Your task to perform on an android device: View the shopping cart on amazon. Search for razer deathadder on amazon, select the first entry, and add it to the cart. Image 0: 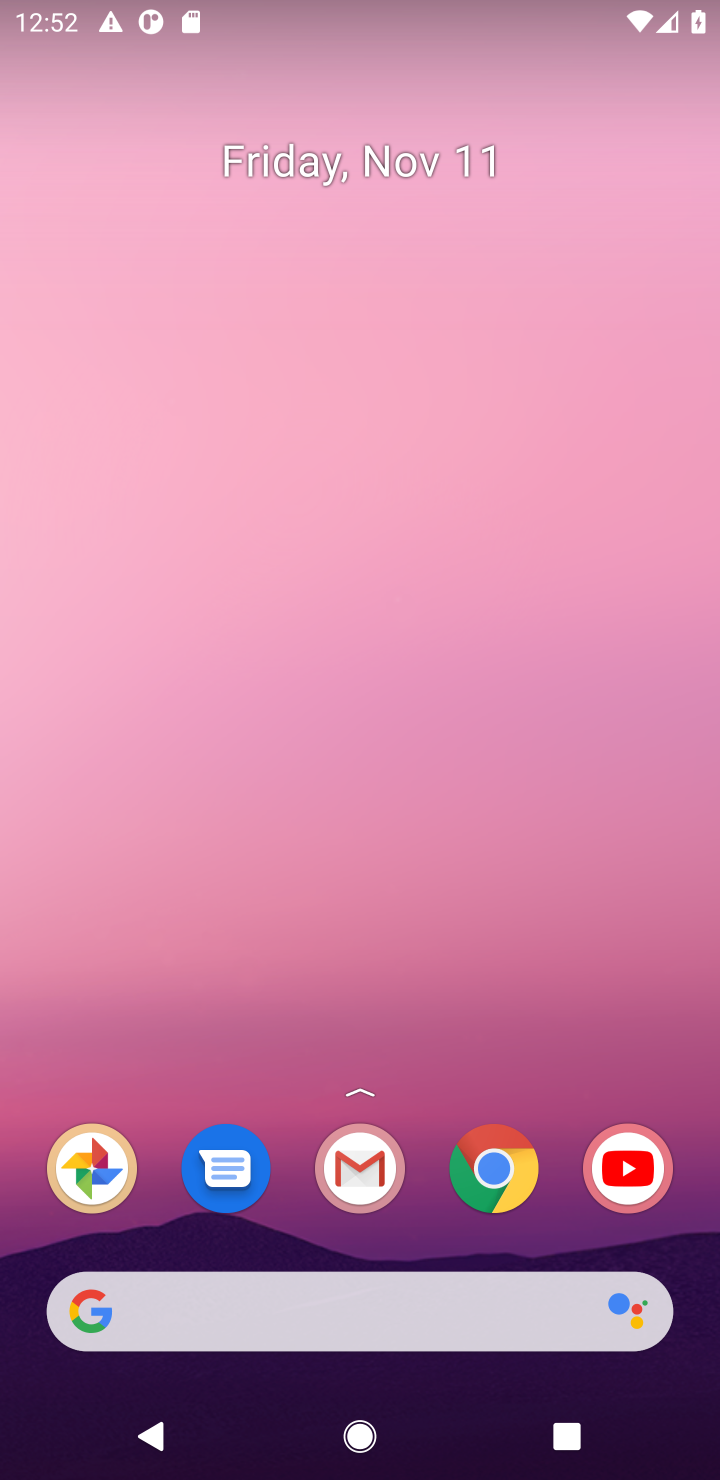
Step 0: click (494, 1179)
Your task to perform on an android device: View the shopping cart on amazon. Search for razer deathadder on amazon, select the first entry, and add it to the cart. Image 1: 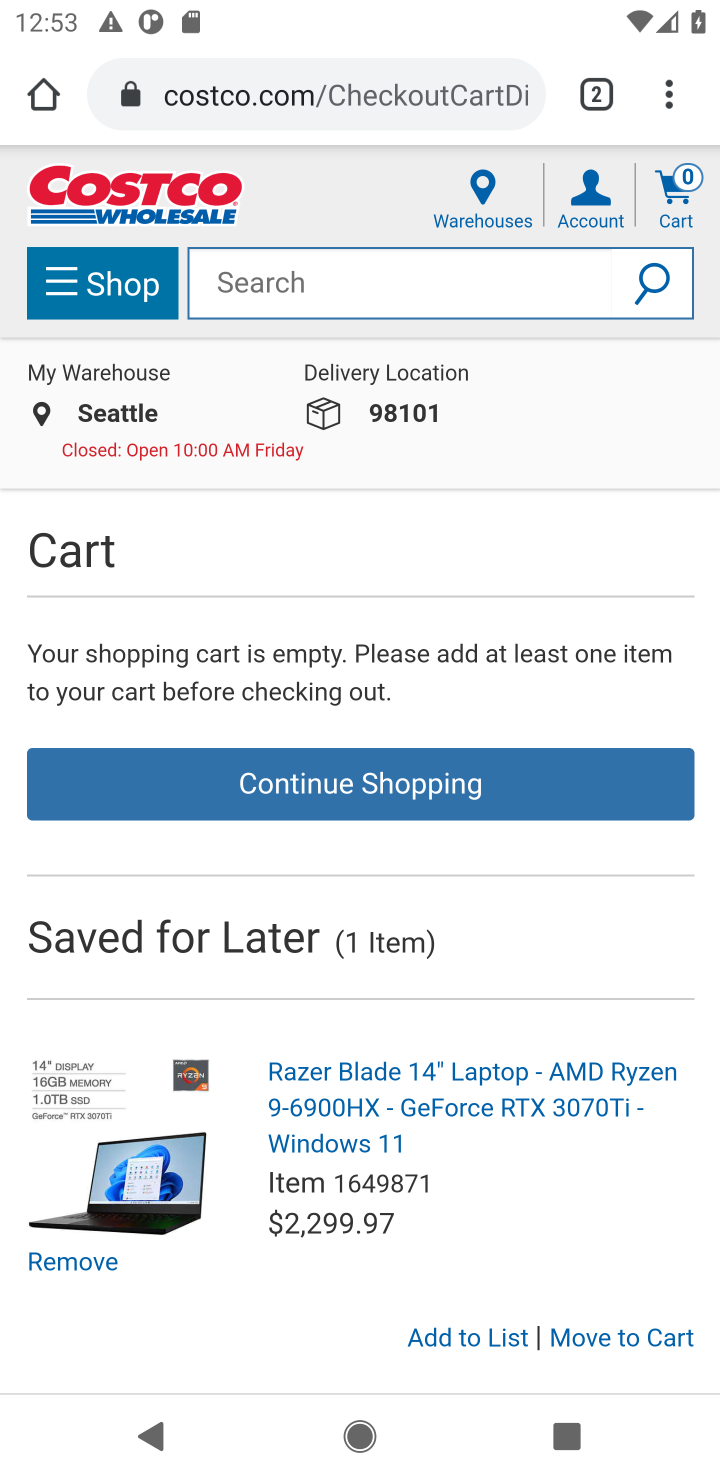
Step 1: click (307, 81)
Your task to perform on an android device: View the shopping cart on amazon. Search for razer deathadder on amazon, select the first entry, and add it to the cart. Image 2: 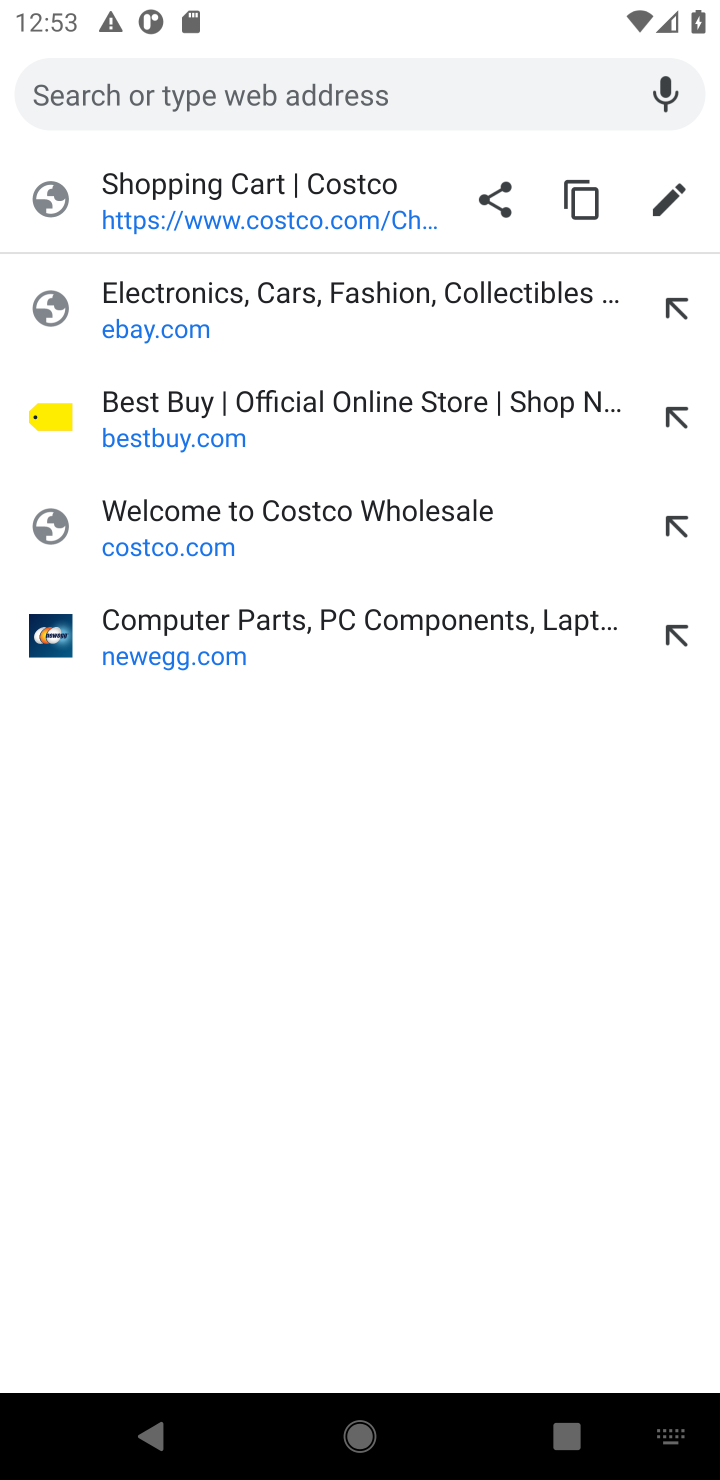
Step 2: type "amazon.com"
Your task to perform on an android device: View the shopping cart on amazon. Search for razer deathadder on amazon, select the first entry, and add it to the cart. Image 3: 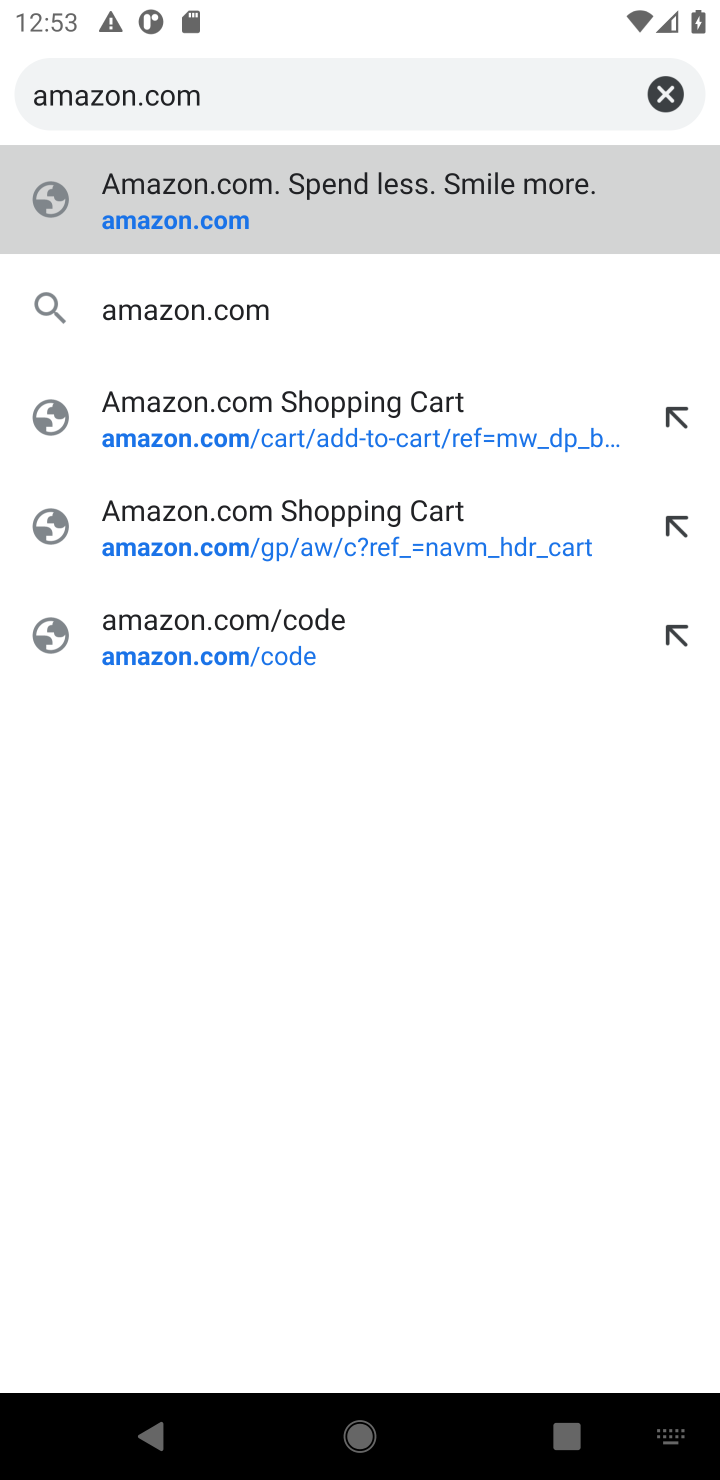
Step 3: click (174, 235)
Your task to perform on an android device: View the shopping cart on amazon. Search for razer deathadder on amazon, select the first entry, and add it to the cart. Image 4: 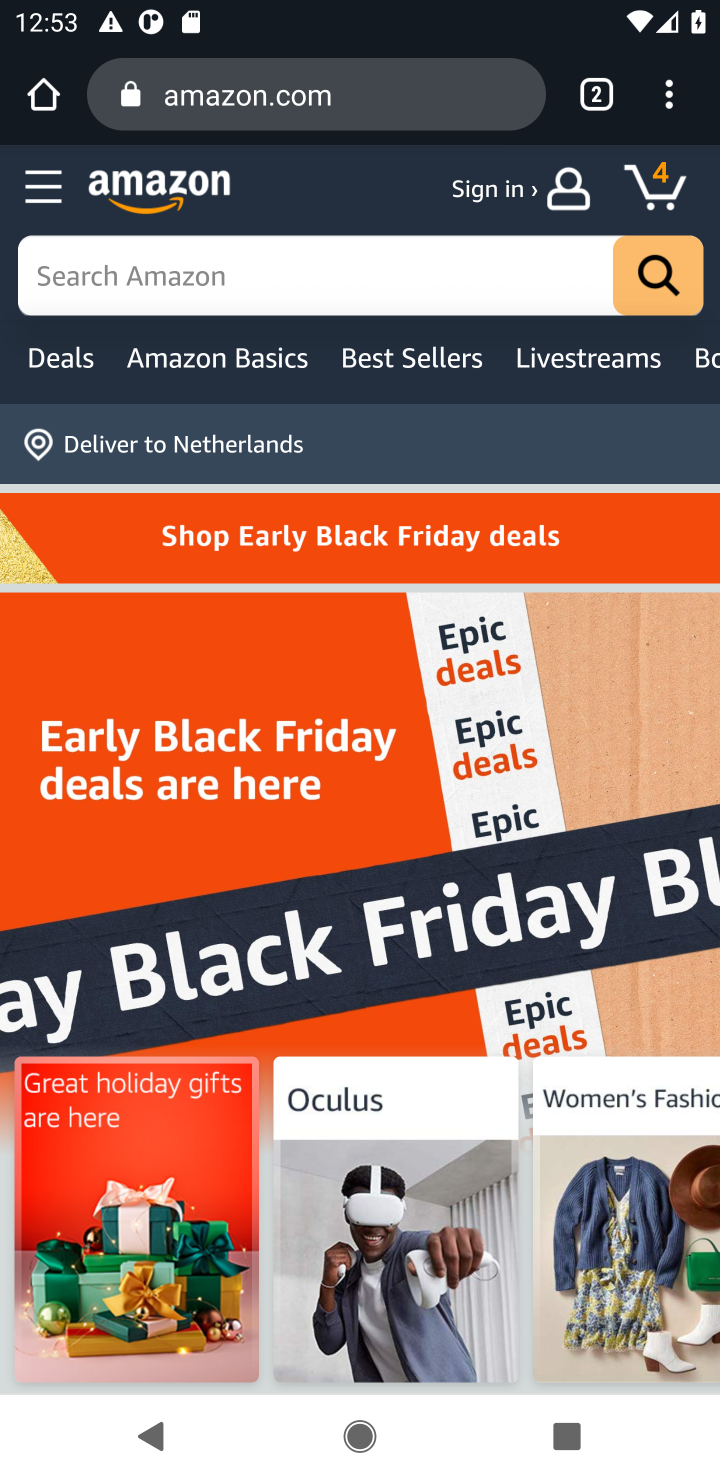
Step 4: click (663, 184)
Your task to perform on an android device: View the shopping cart on amazon. Search for razer deathadder on amazon, select the first entry, and add it to the cart. Image 5: 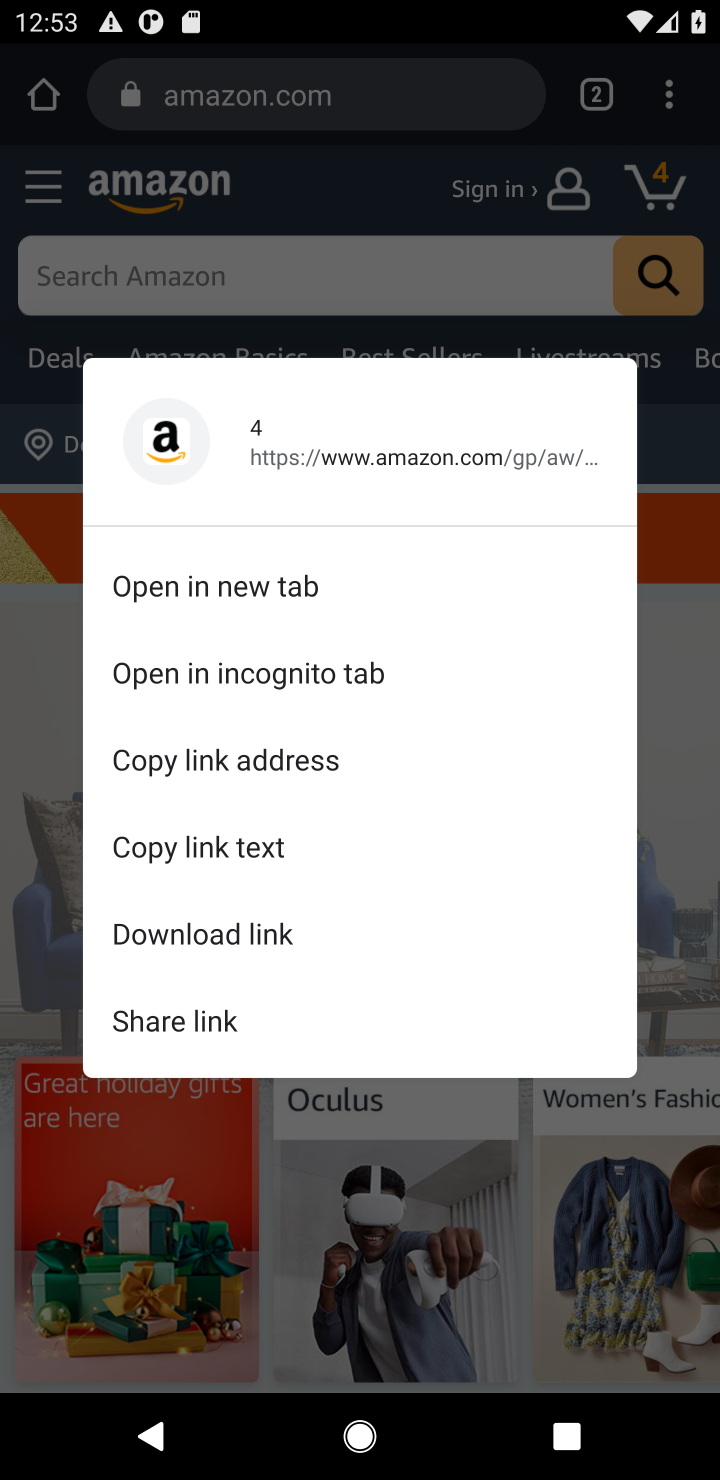
Step 5: click (663, 191)
Your task to perform on an android device: View the shopping cart on amazon. Search for razer deathadder on amazon, select the first entry, and add it to the cart. Image 6: 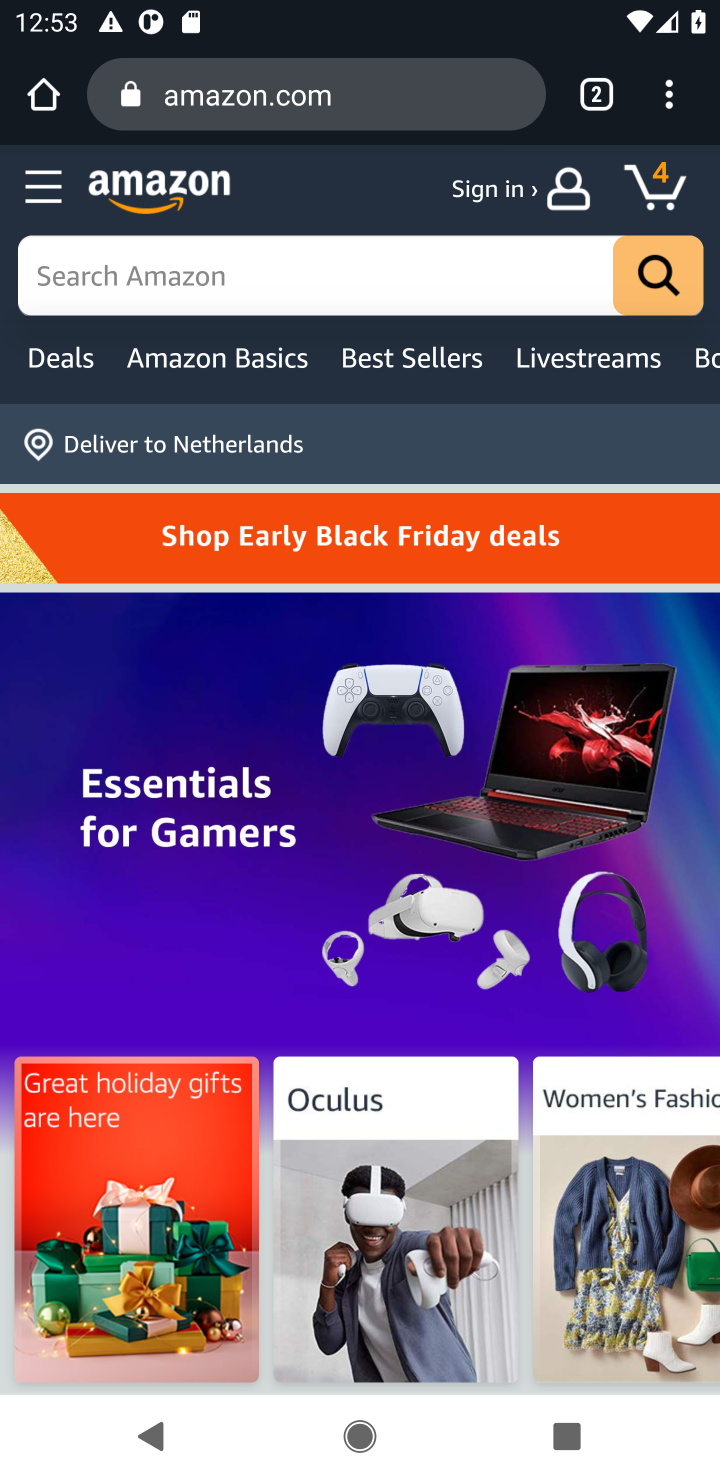
Step 6: click (663, 193)
Your task to perform on an android device: View the shopping cart on amazon. Search for razer deathadder on amazon, select the first entry, and add it to the cart. Image 7: 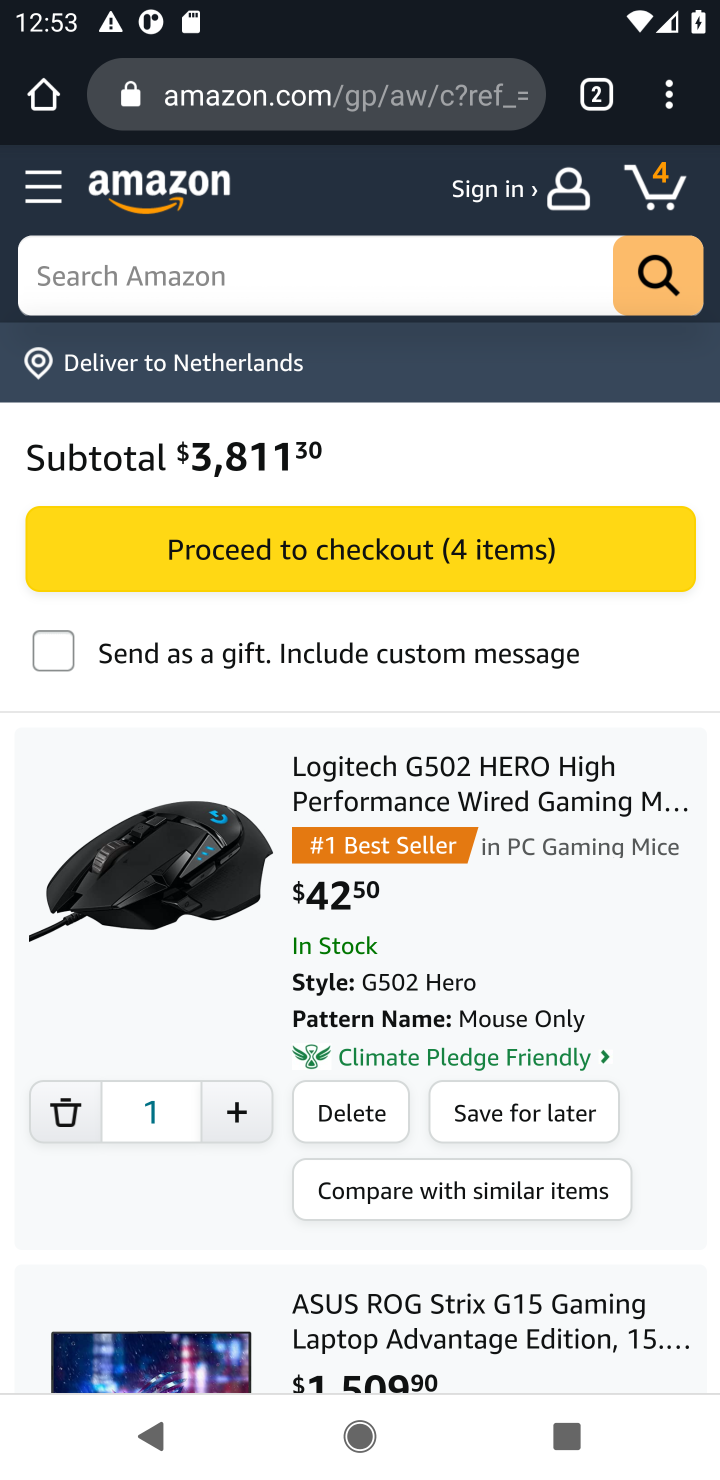
Step 7: drag from (662, 959) to (666, 829)
Your task to perform on an android device: View the shopping cart on amazon. Search for razer deathadder on amazon, select the first entry, and add it to the cart. Image 8: 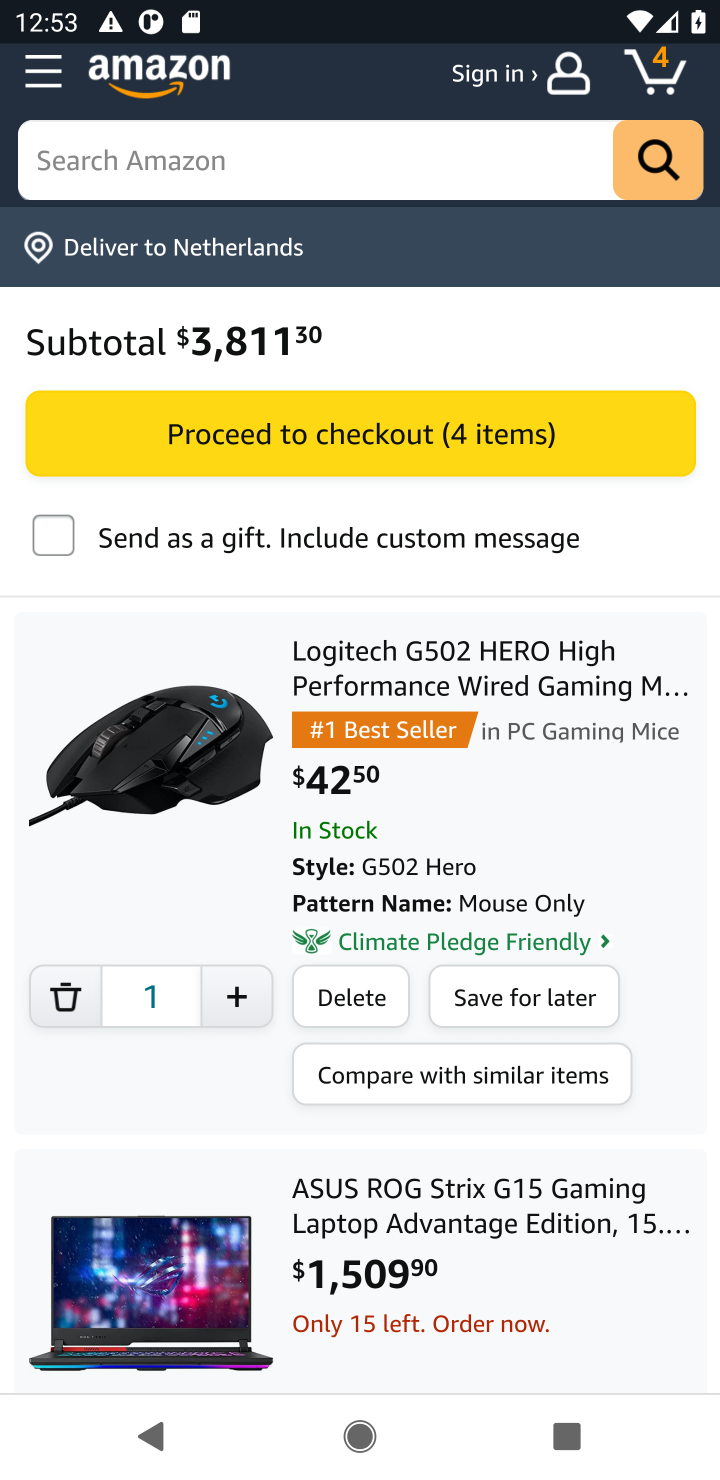
Step 8: click (189, 168)
Your task to perform on an android device: View the shopping cart on amazon. Search for razer deathadder on amazon, select the first entry, and add it to the cart. Image 9: 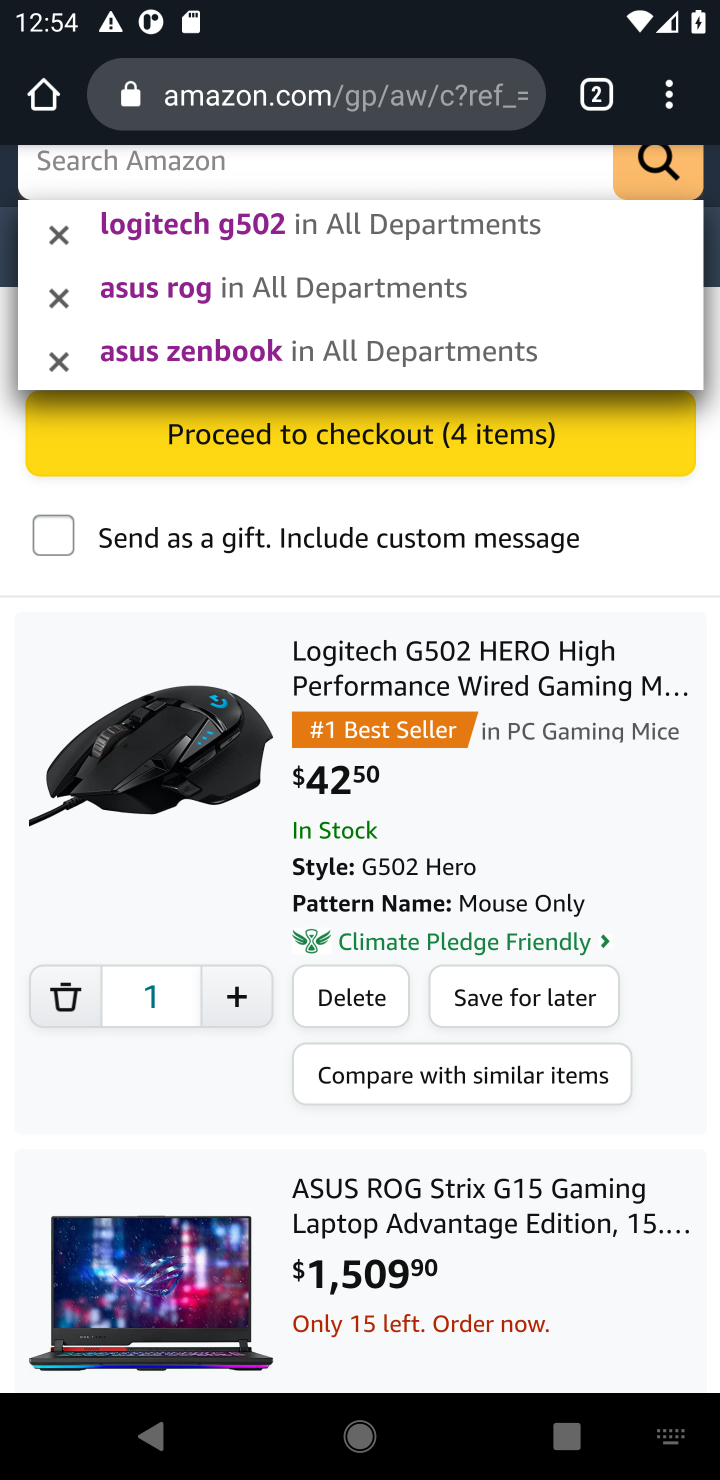
Step 9: type "razer deathadder"
Your task to perform on an android device: View the shopping cart on amazon. Search for razer deathadder on amazon, select the first entry, and add it to the cart. Image 10: 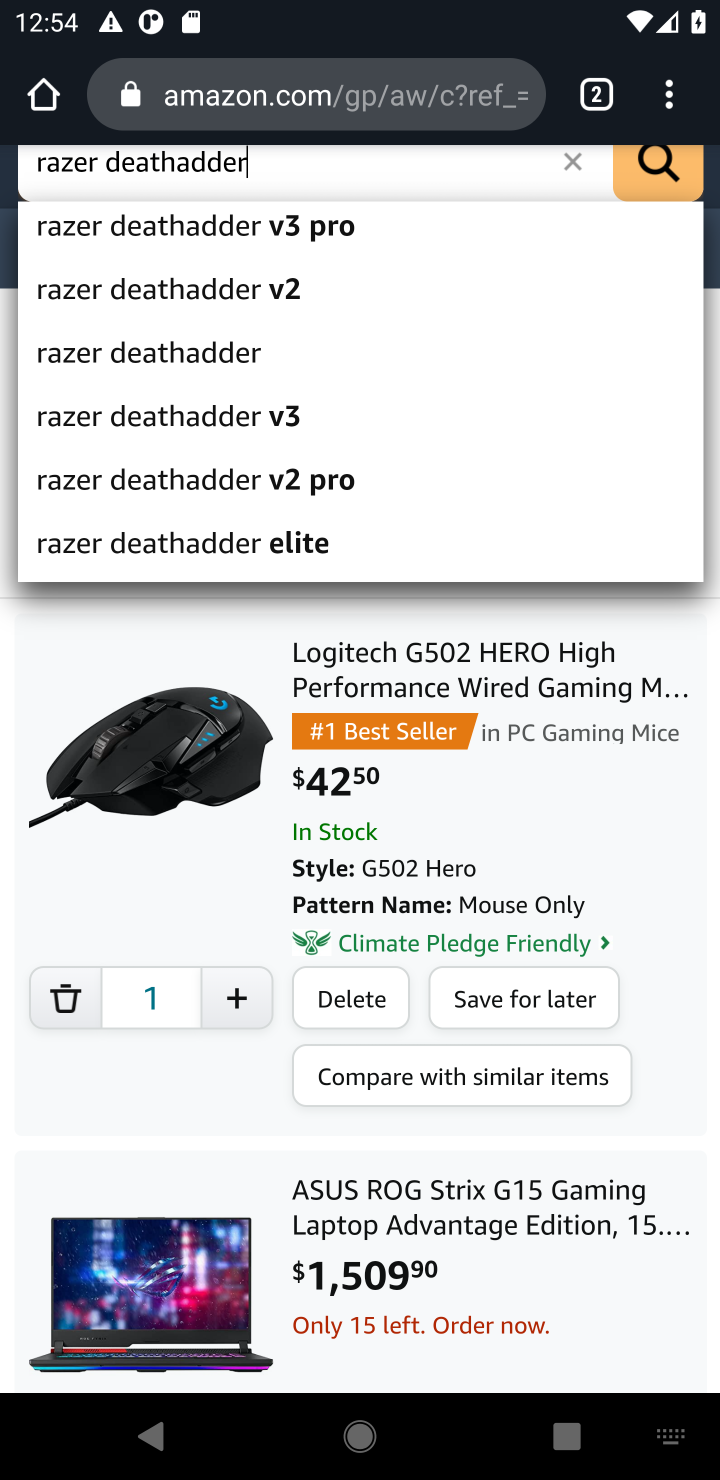
Step 10: click (203, 364)
Your task to perform on an android device: View the shopping cart on amazon. Search for razer deathadder on amazon, select the first entry, and add it to the cart. Image 11: 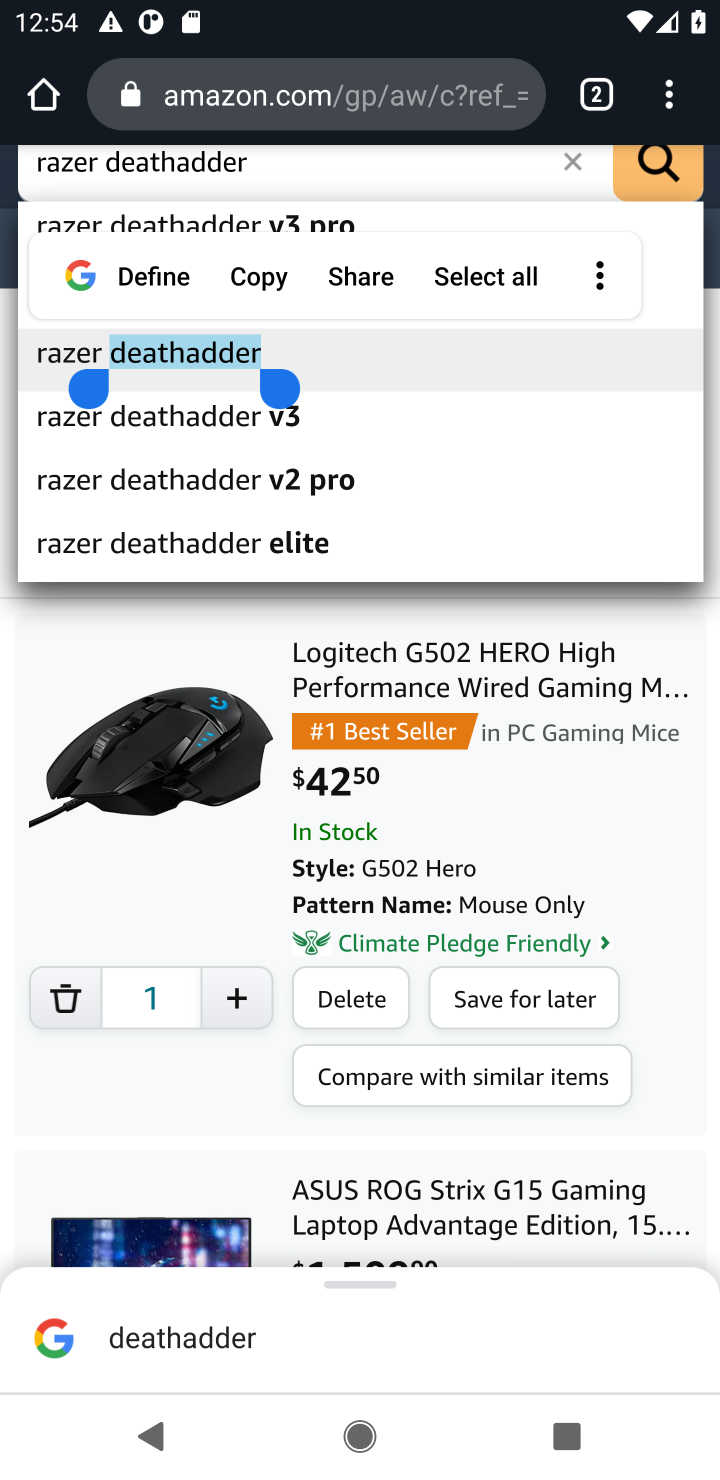
Step 11: click (77, 363)
Your task to perform on an android device: View the shopping cart on amazon. Search for razer deathadder on amazon, select the first entry, and add it to the cart. Image 12: 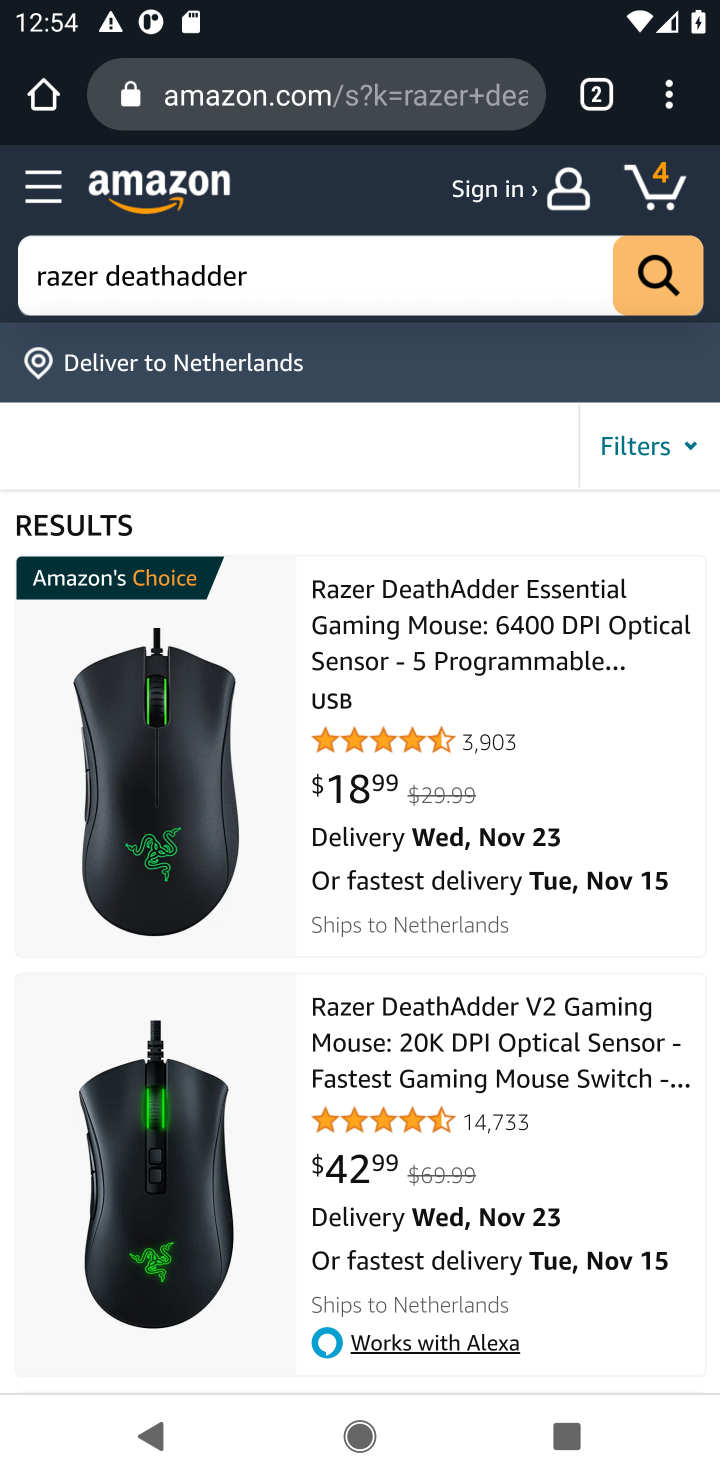
Step 12: click (204, 774)
Your task to perform on an android device: View the shopping cart on amazon. Search for razer deathadder on amazon, select the first entry, and add it to the cart. Image 13: 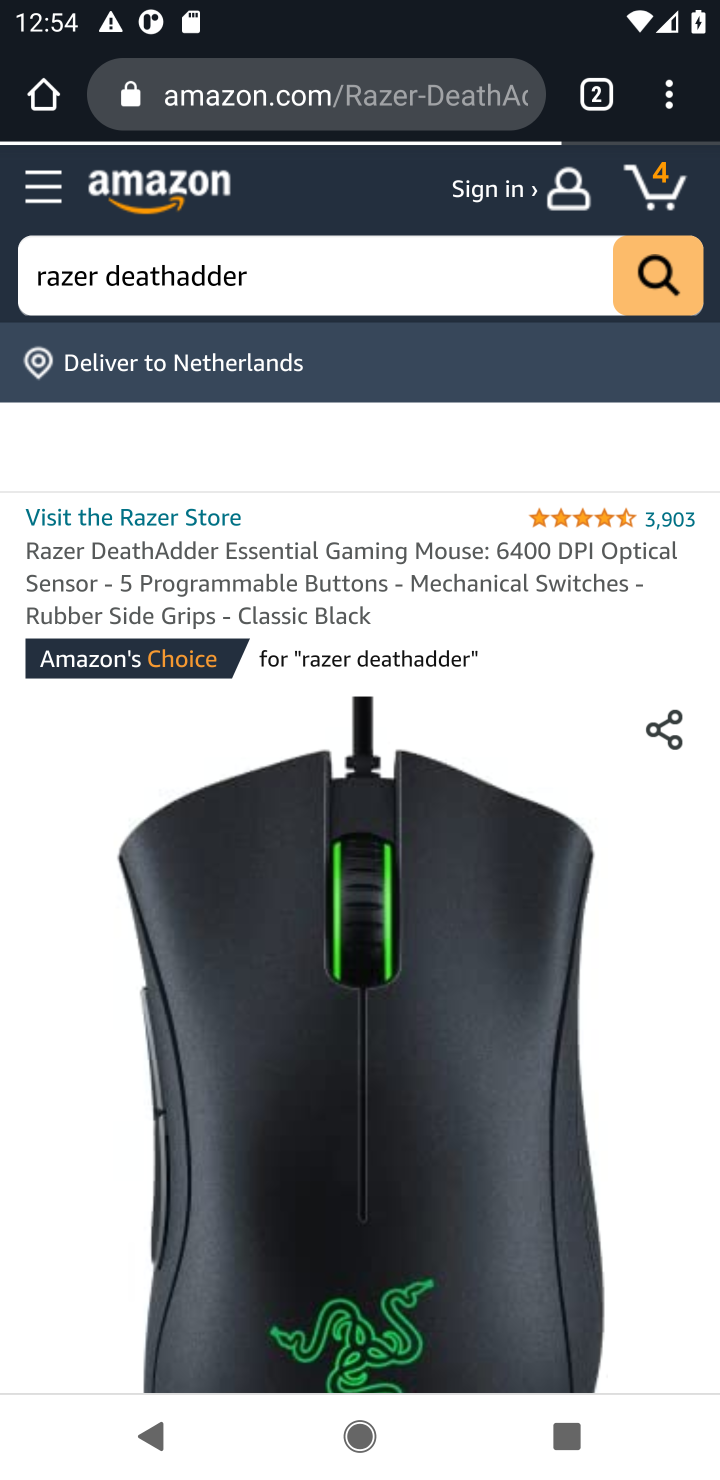
Step 13: drag from (447, 1069) to (419, 596)
Your task to perform on an android device: View the shopping cart on amazon. Search for razer deathadder on amazon, select the first entry, and add it to the cart. Image 14: 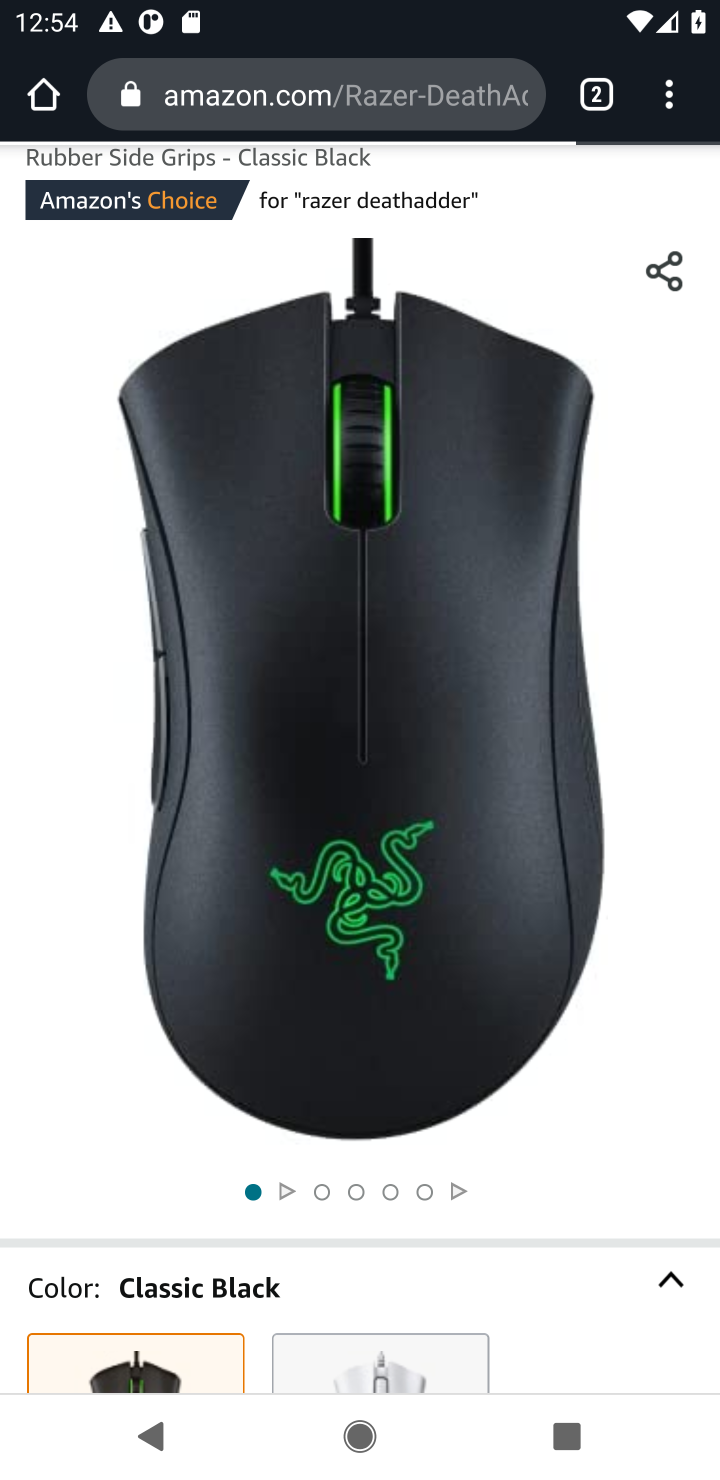
Step 14: drag from (587, 1073) to (524, 420)
Your task to perform on an android device: View the shopping cart on amazon. Search for razer deathadder on amazon, select the first entry, and add it to the cart. Image 15: 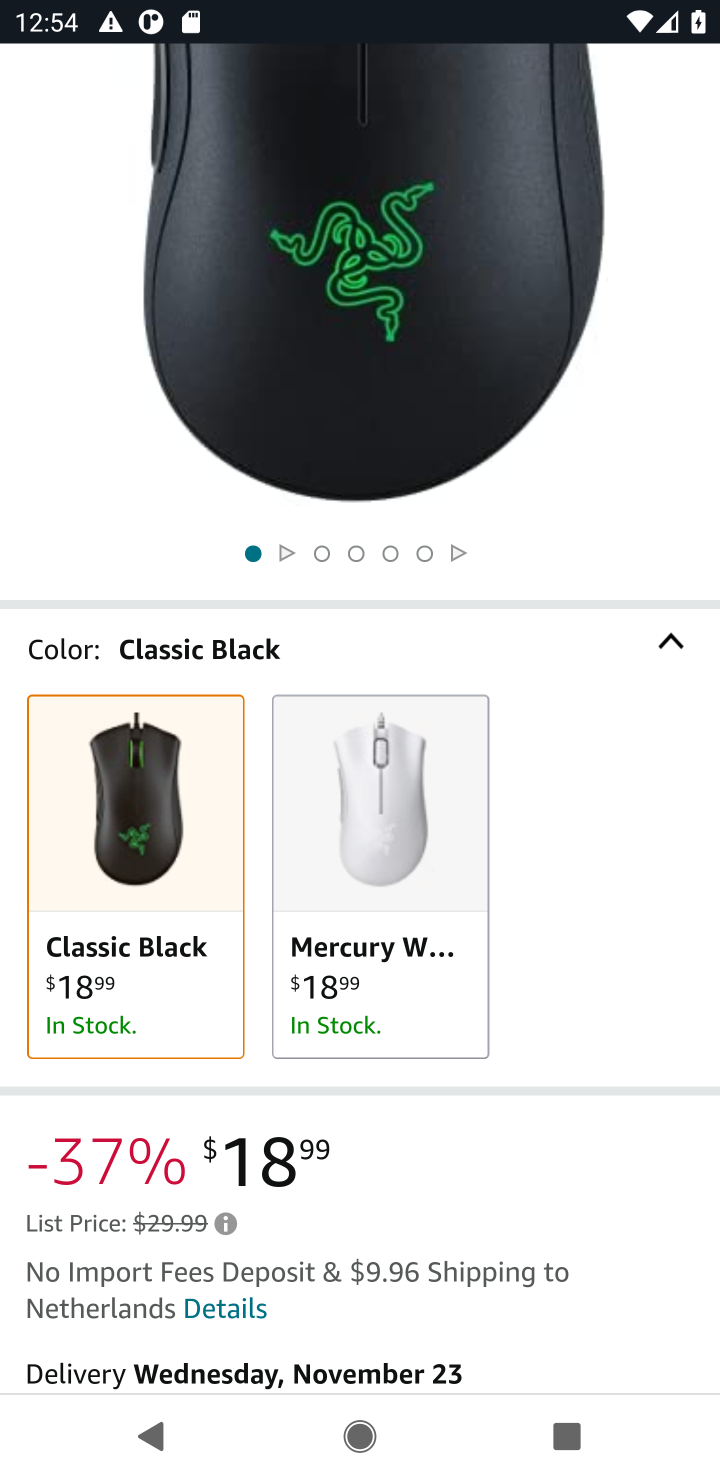
Step 15: drag from (447, 1161) to (446, 517)
Your task to perform on an android device: View the shopping cart on amazon. Search for razer deathadder on amazon, select the first entry, and add it to the cart. Image 16: 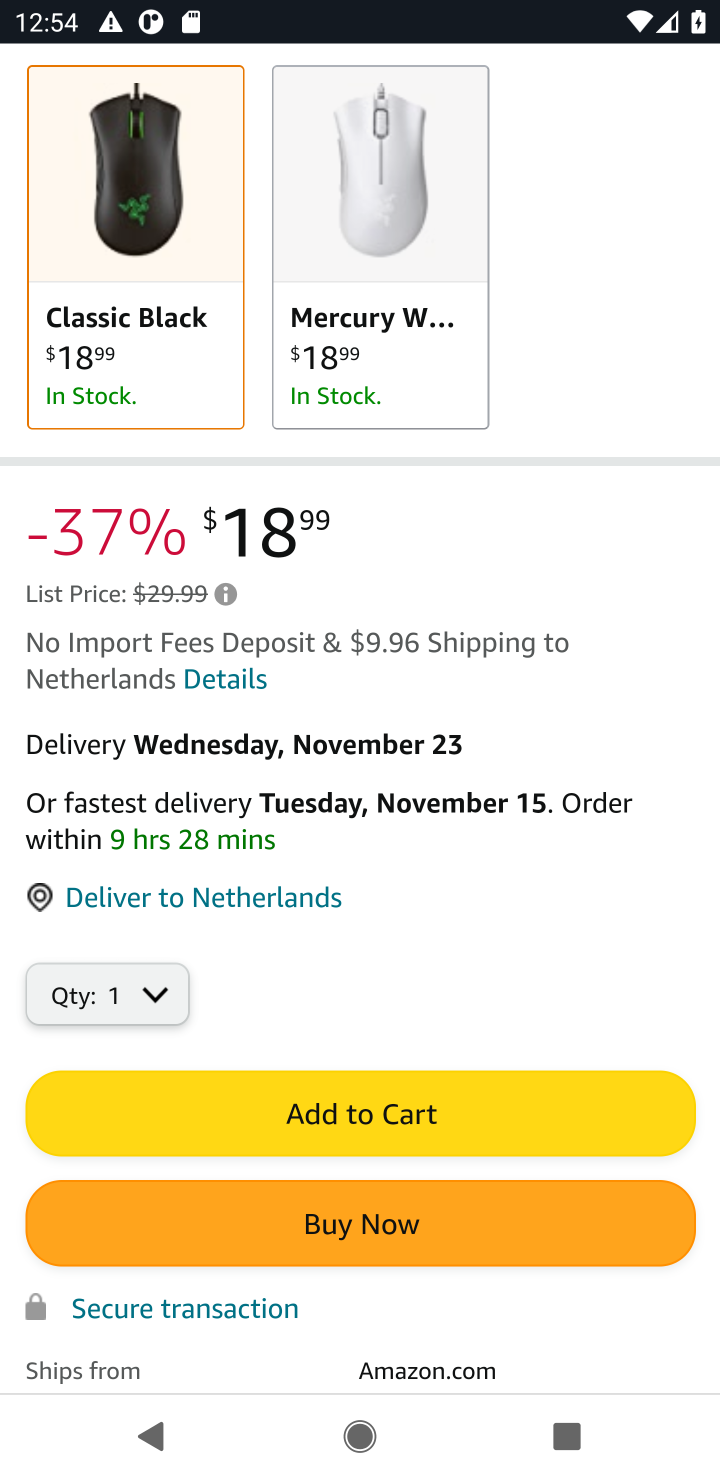
Step 16: click (328, 1095)
Your task to perform on an android device: View the shopping cart on amazon. Search for razer deathadder on amazon, select the first entry, and add it to the cart. Image 17: 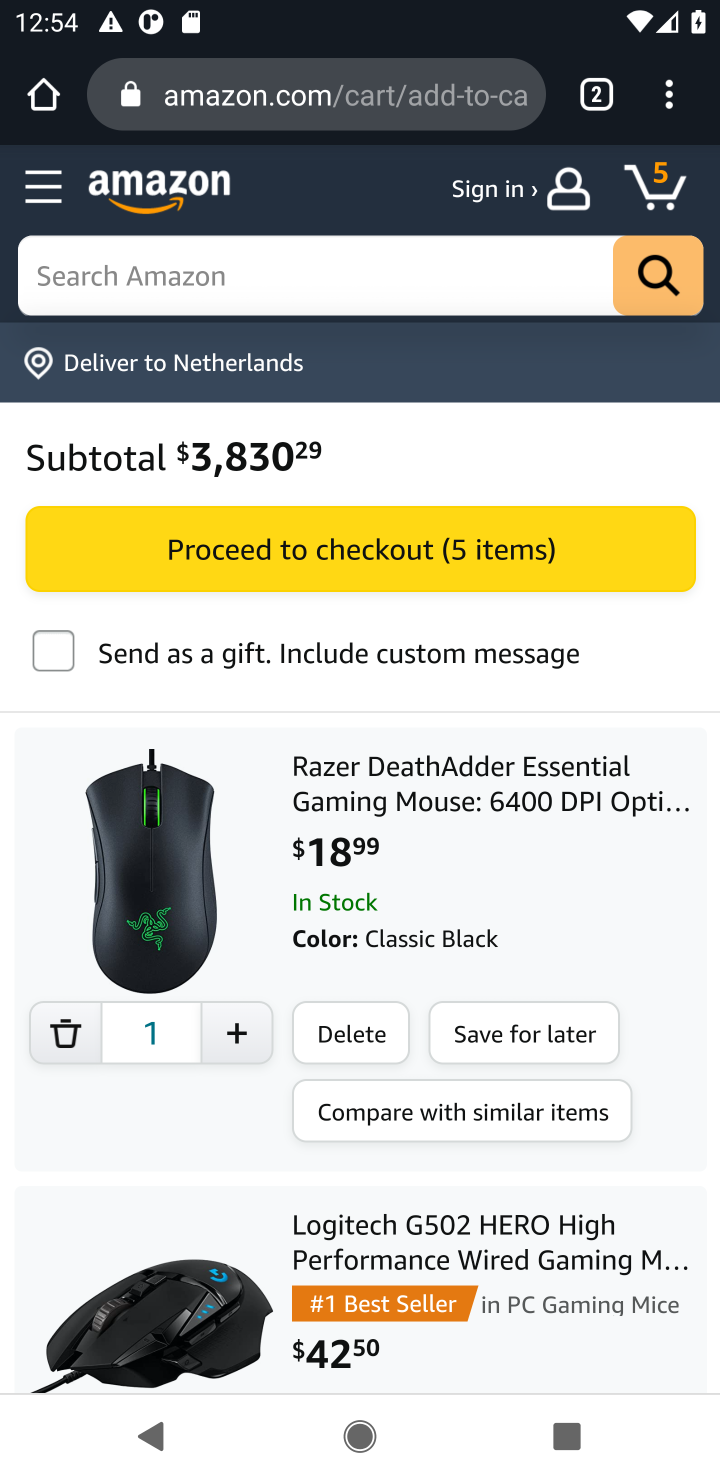
Step 17: task complete